Your task to perform on an android device: turn on the 24-hour format for clock Image 0: 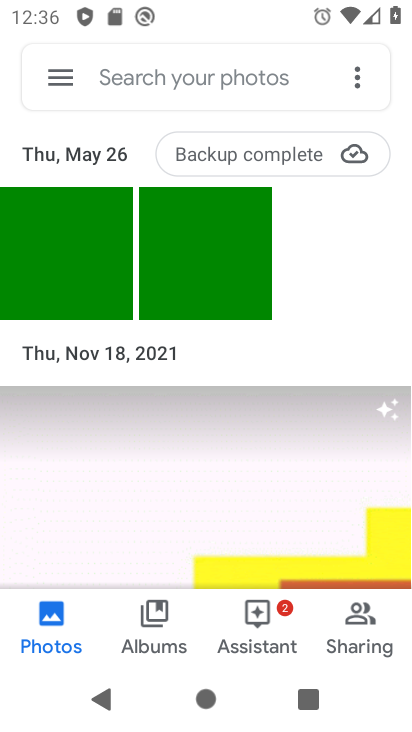
Step 0: drag from (268, 385) to (288, 140)
Your task to perform on an android device: turn on the 24-hour format for clock Image 1: 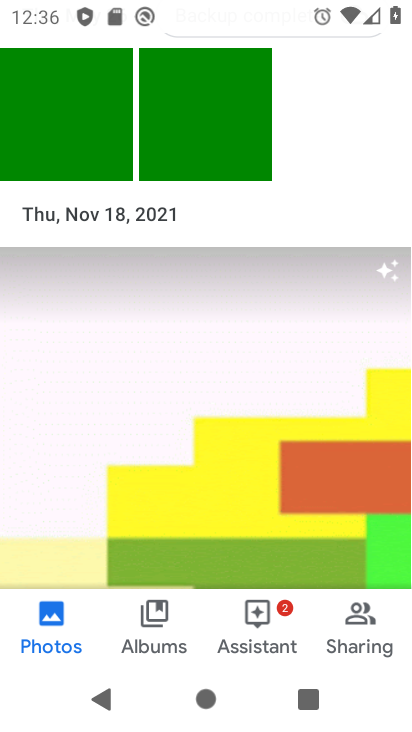
Step 1: press home button
Your task to perform on an android device: turn on the 24-hour format for clock Image 2: 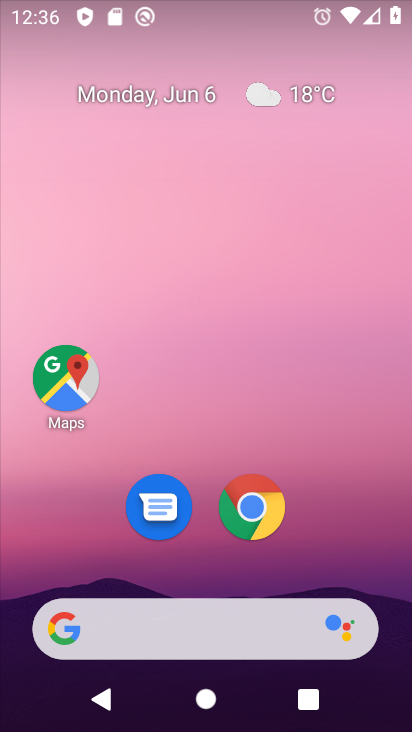
Step 2: drag from (229, 578) to (230, 169)
Your task to perform on an android device: turn on the 24-hour format for clock Image 3: 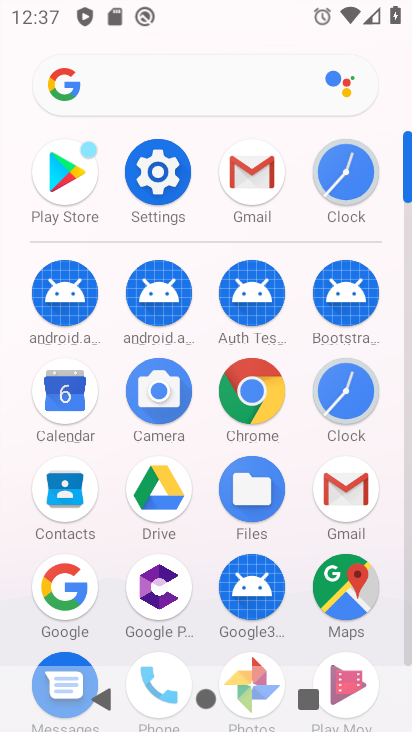
Step 3: click (350, 402)
Your task to perform on an android device: turn on the 24-hour format for clock Image 4: 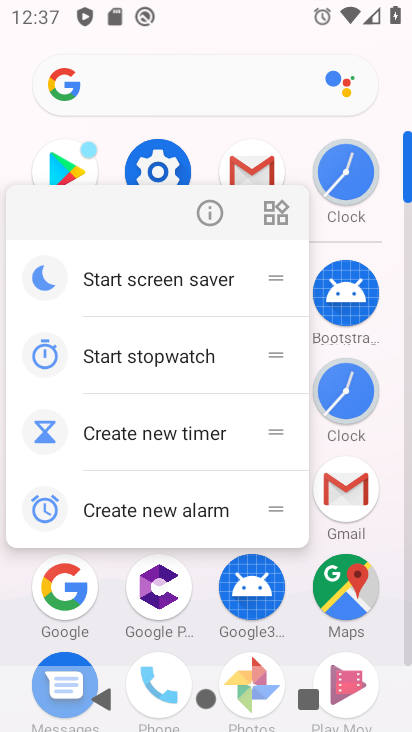
Step 4: click (337, 412)
Your task to perform on an android device: turn on the 24-hour format for clock Image 5: 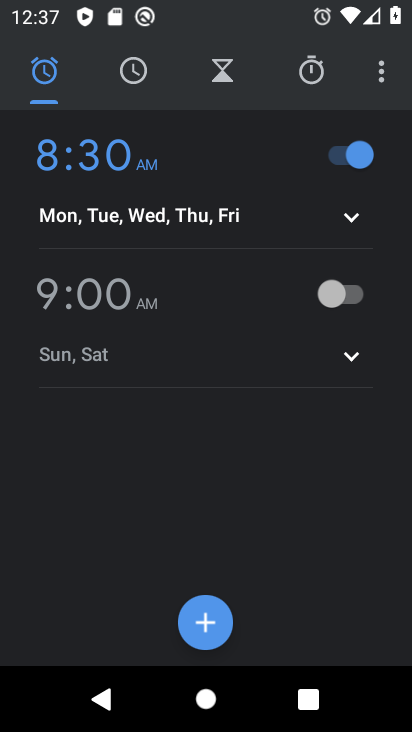
Step 5: press home button
Your task to perform on an android device: turn on the 24-hour format for clock Image 6: 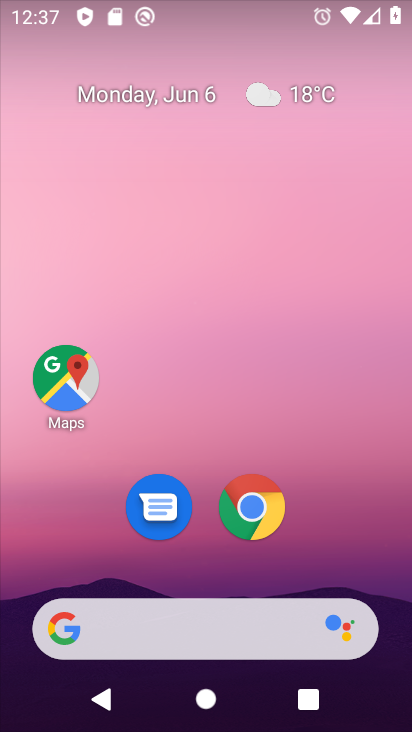
Step 6: drag from (194, 547) to (239, 4)
Your task to perform on an android device: turn on the 24-hour format for clock Image 7: 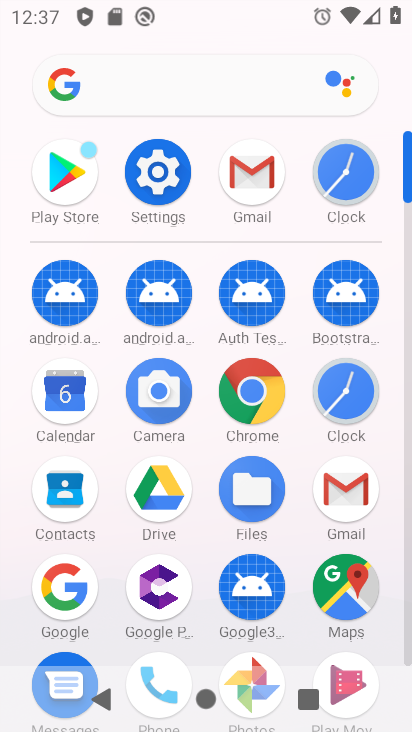
Step 7: click (155, 181)
Your task to perform on an android device: turn on the 24-hour format for clock Image 8: 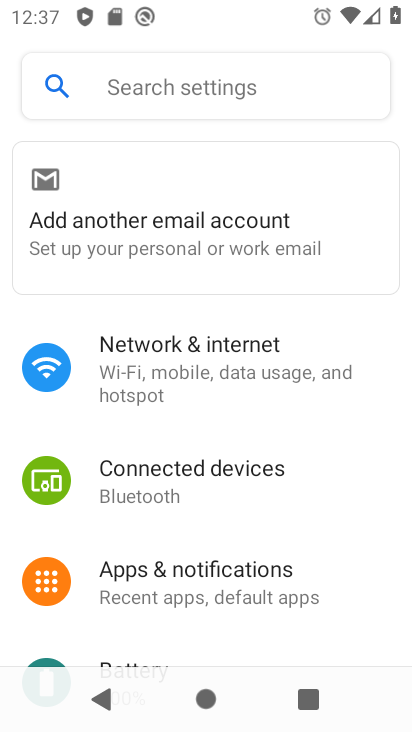
Step 8: drag from (198, 594) to (211, 295)
Your task to perform on an android device: turn on the 24-hour format for clock Image 9: 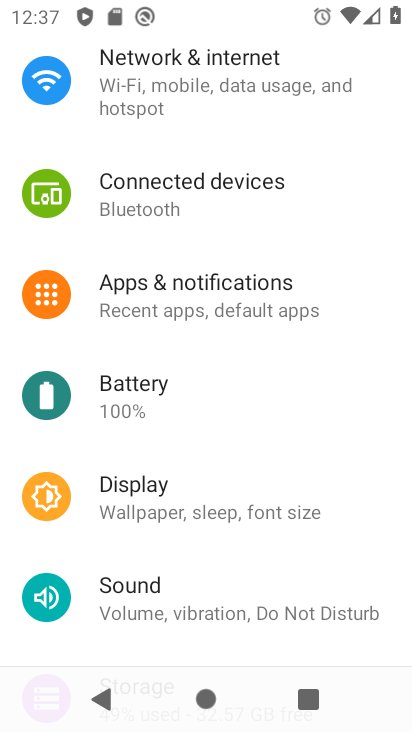
Step 9: drag from (195, 539) to (223, 135)
Your task to perform on an android device: turn on the 24-hour format for clock Image 10: 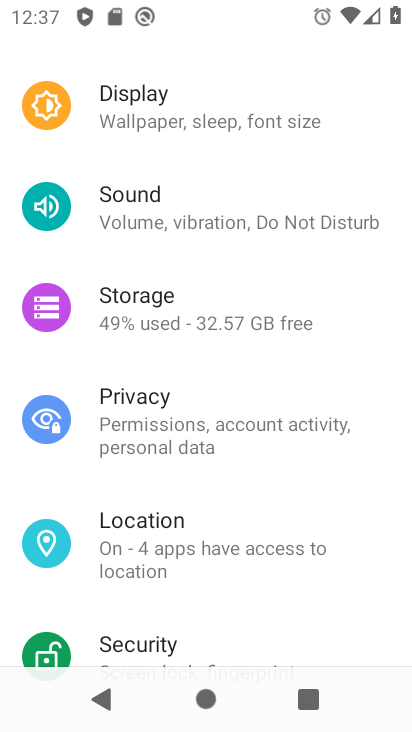
Step 10: drag from (219, 561) to (249, 132)
Your task to perform on an android device: turn on the 24-hour format for clock Image 11: 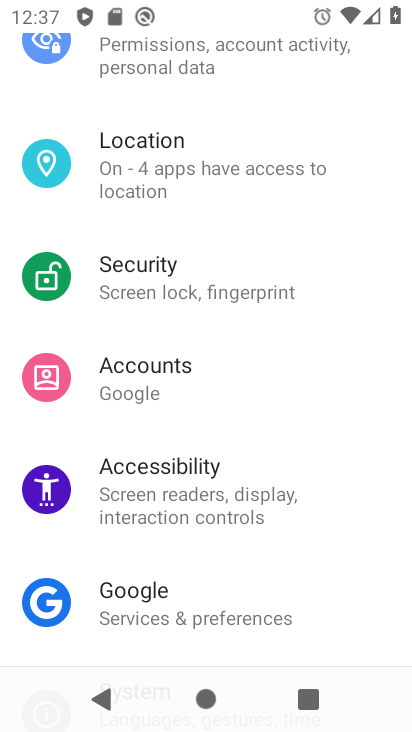
Step 11: drag from (219, 525) to (217, 122)
Your task to perform on an android device: turn on the 24-hour format for clock Image 12: 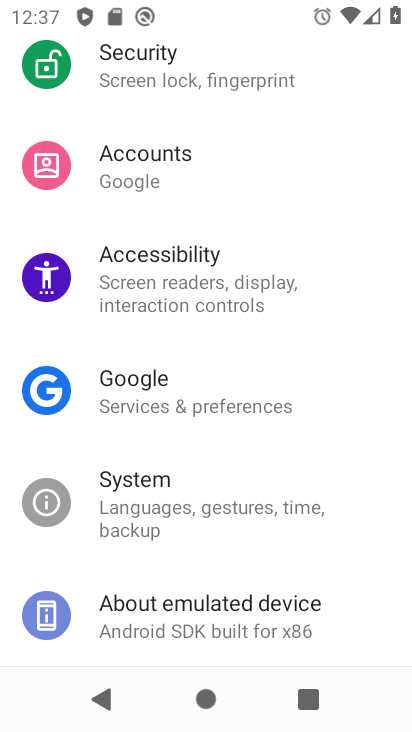
Step 12: click (193, 509)
Your task to perform on an android device: turn on the 24-hour format for clock Image 13: 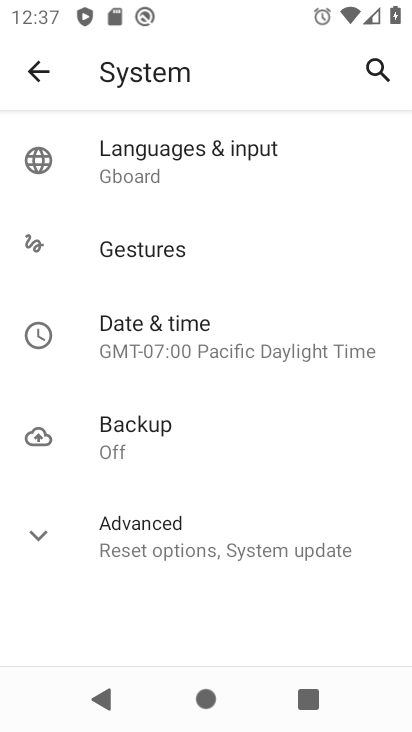
Step 13: click (230, 355)
Your task to perform on an android device: turn on the 24-hour format for clock Image 14: 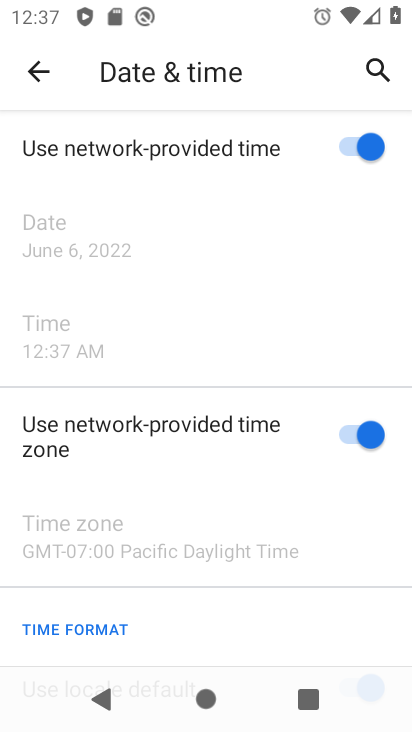
Step 14: drag from (195, 544) to (205, 188)
Your task to perform on an android device: turn on the 24-hour format for clock Image 15: 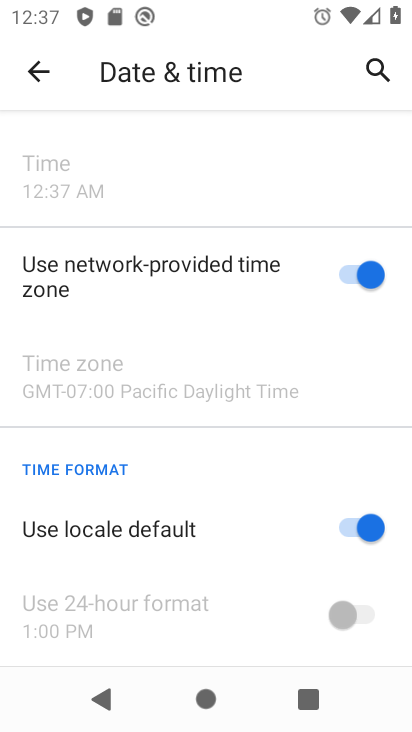
Step 15: click (354, 528)
Your task to perform on an android device: turn on the 24-hour format for clock Image 16: 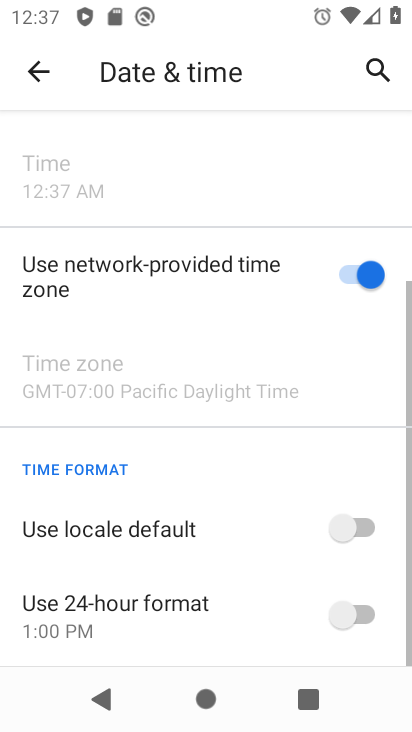
Step 16: click (365, 612)
Your task to perform on an android device: turn on the 24-hour format for clock Image 17: 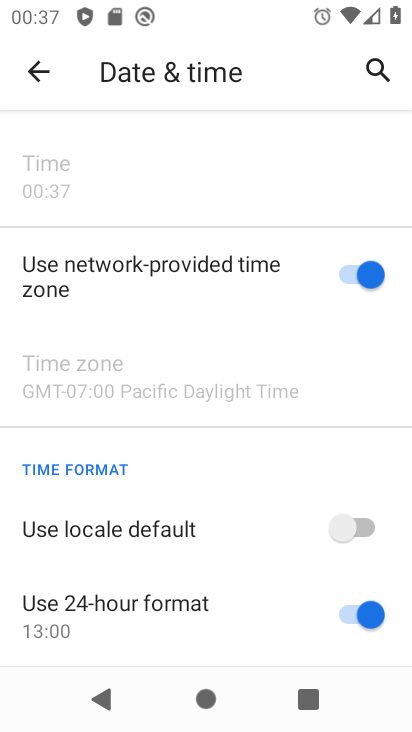
Step 17: task complete